Your task to perform on an android device: Go to accessibility settings Image 0: 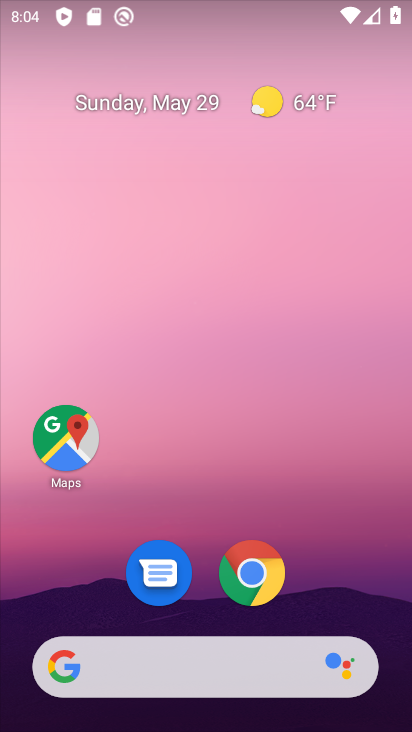
Step 0: drag from (260, 688) to (165, 28)
Your task to perform on an android device: Go to accessibility settings Image 1: 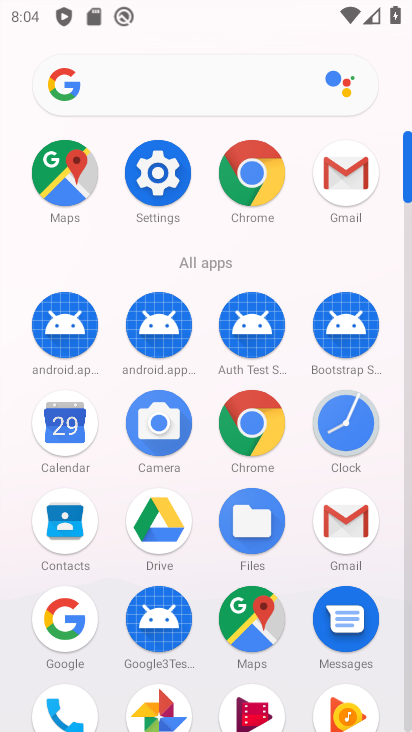
Step 1: drag from (129, 157) to (140, 66)
Your task to perform on an android device: Go to accessibility settings Image 2: 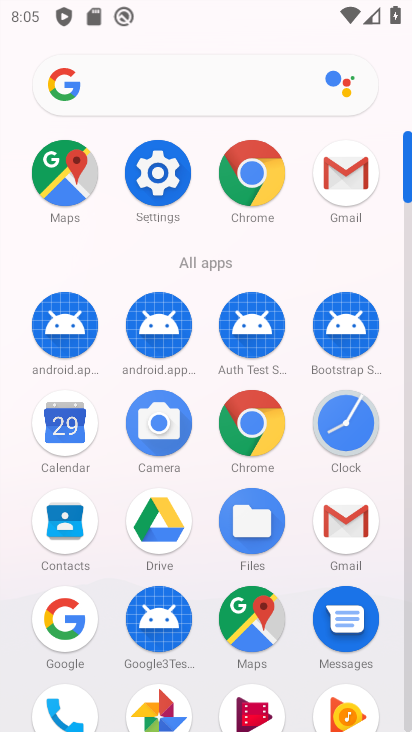
Step 2: click (157, 180)
Your task to perform on an android device: Go to accessibility settings Image 3: 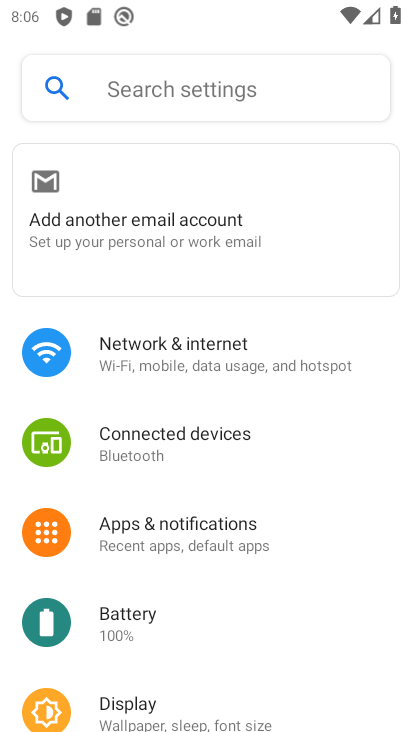
Step 3: drag from (232, 565) to (293, 214)
Your task to perform on an android device: Go to accessibility settings Image 4: 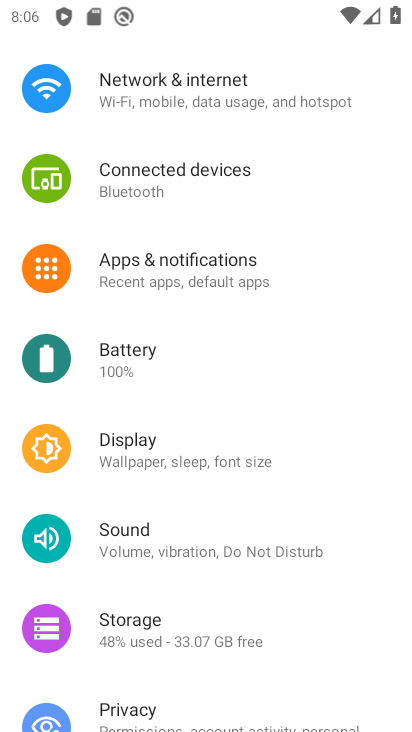
Step 4: drag from (283, 309) to (279, 174)
Your task to perform on an android device: Go to accessibility settings Image 5: 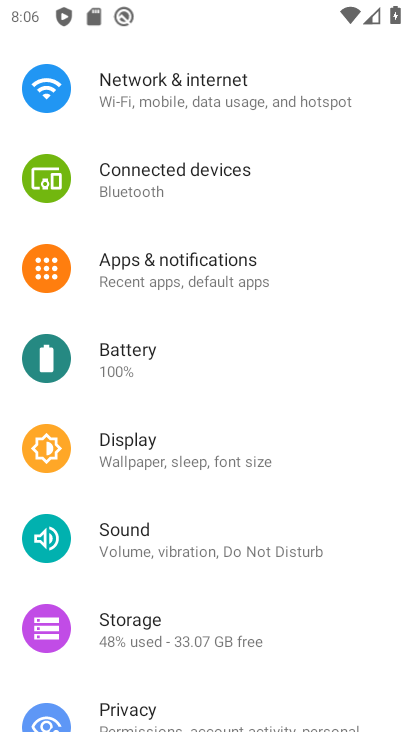
Step 5: click (179, 30)
Your task to perform on an android device: Go to accessibility settings Image 6: 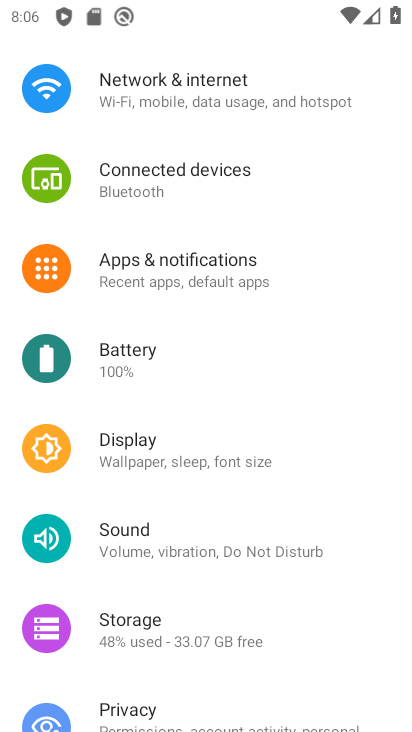
Step 6: task complete